Your task to perform on an android device: Open Yahoo.com Image 0: 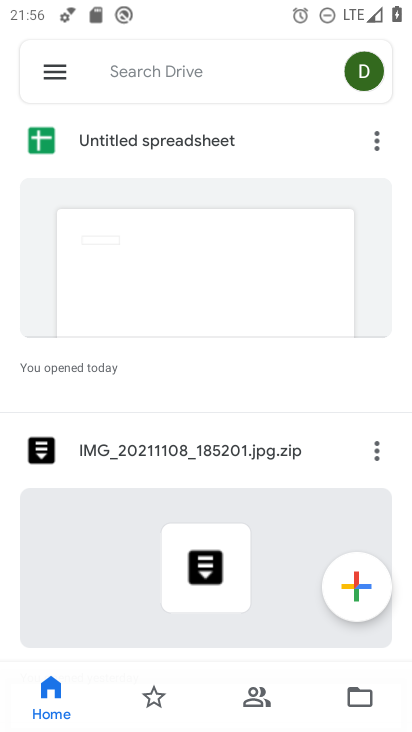
Step 0: press home button
Your task to perform on an android device: Open Yahoo.com Image 1: 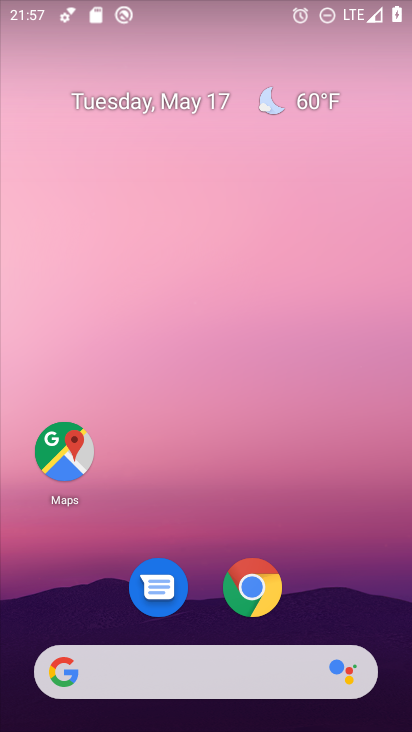
Step 1: click (63, 452)
Your task to perform on an android device: Open Yahoo.com Image 2: 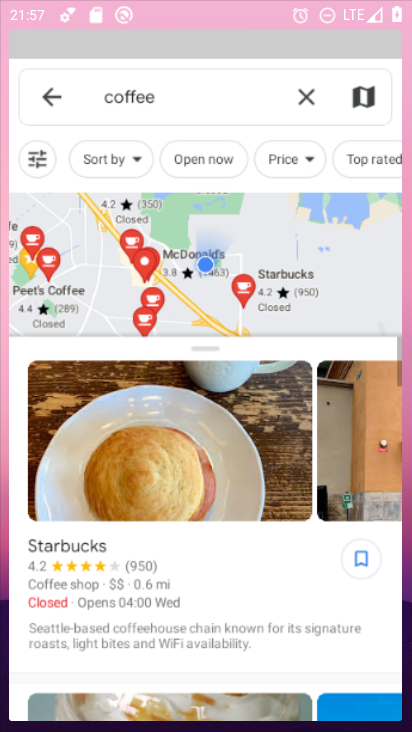
Step 2: drag from (170, 509) to (278, 153)
Your task to perform on an android device: Open Yahoo.com Image 3: 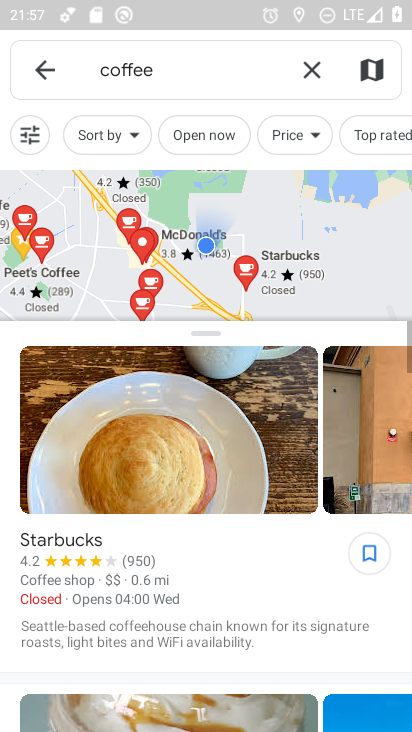
Step 3: press home button
Your task to perform on an android device: Open Yahoo.com Image 4: 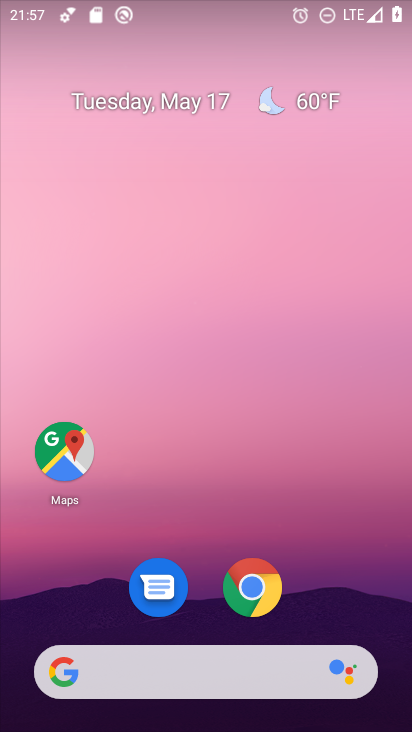
Step 4: drag from (236, 534) to (335, 33)
Your task to perform on an android device: Open Yahoo.com Image 5: 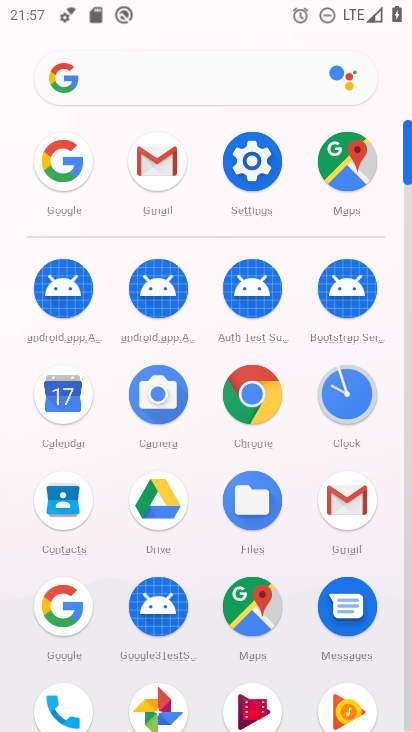
Step 5: click (279, 378)
Your task to perform on an android device: Open Yahoo.com Image 6: 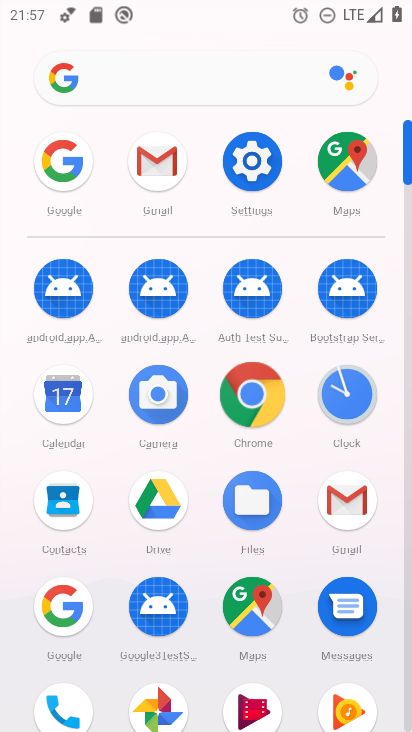
Step 6: click (273, 397)
Your task to perform on an android device: Open Yahoo.com Image 7: 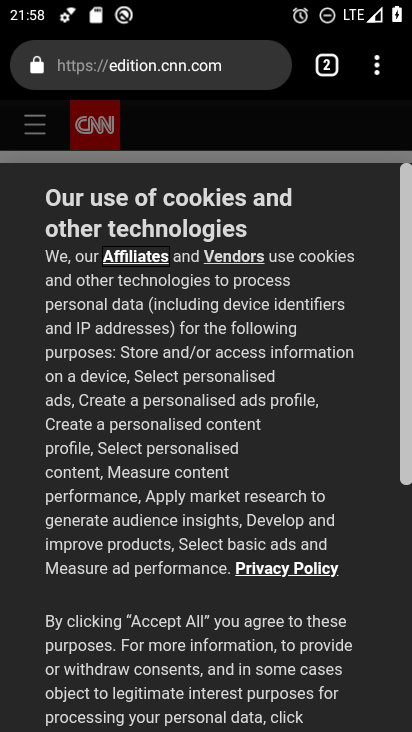
Step 7: click (339, 75)
Your task to perform on an android device: Open Yahoo.com Image 8: 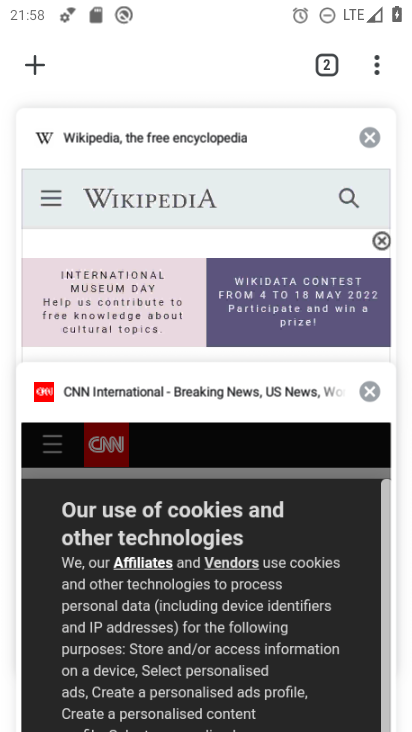
Step 8: click (46, 69)
Your task to perform on an android device: Open Yahoo.com Image 9: 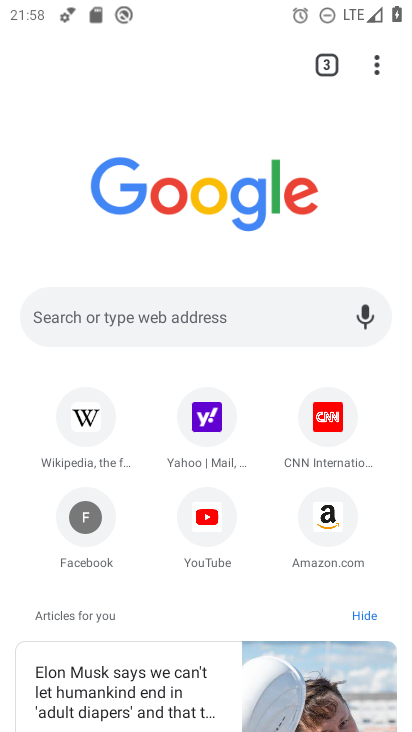
Step 9: click (208, 436)
Your task to perform on an android device: Open Yahoo.com Image 10: 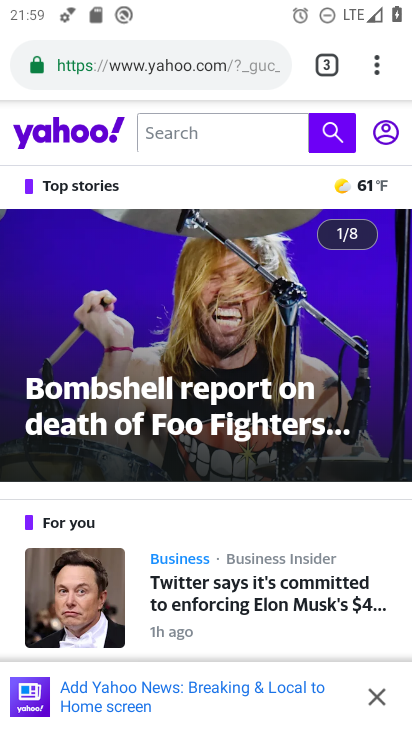
Step 10: task complete